Your task to perform on an android device: Open calendar and show me the first week of next month Image 0: 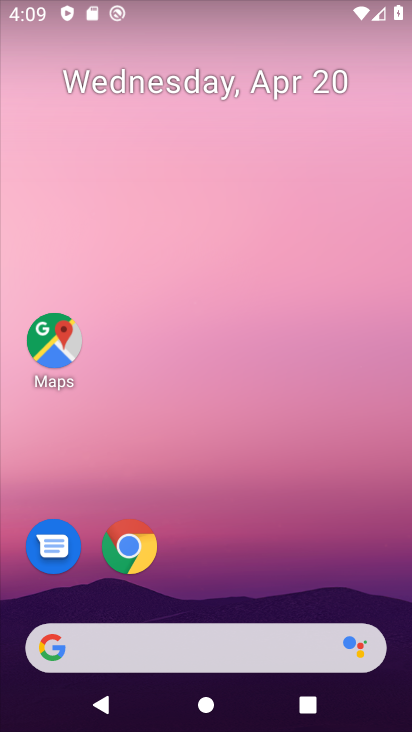
Step 0: drag from (277, 427) to (275, 110)
Your task to perform on an android device: Open calendar and show me the first week of next month Image 1: 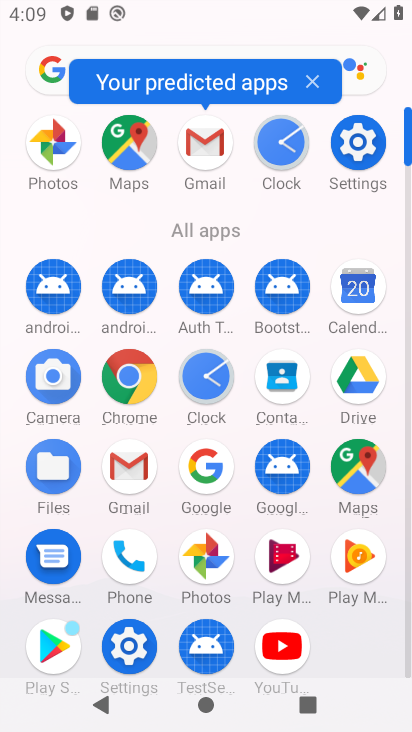
Step 1: click (356, 284)
Your task to perform on an android device: Open calendar and show me the first week of next month Image 2: 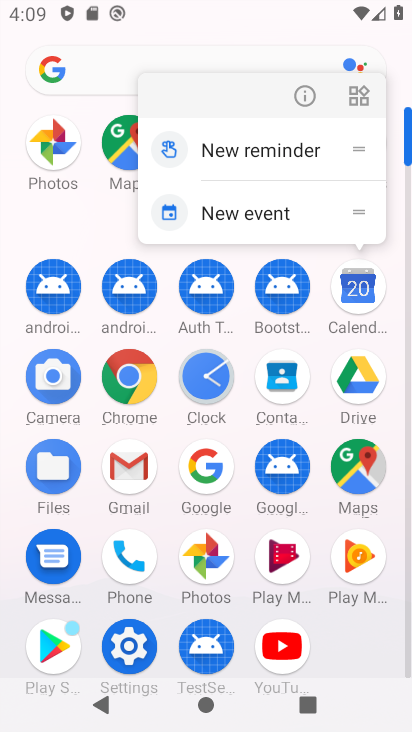
Step 2: click (356, 284)
Your task to perform on an android device: Open calendar and show me the first week of next month Image 3: 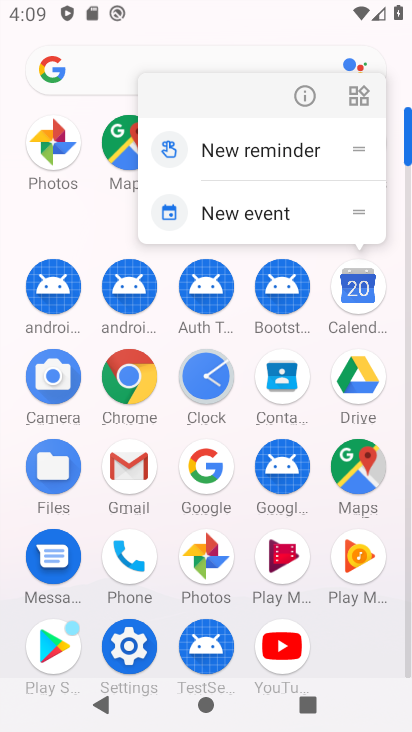
Step 3: click (356, 284)
Your task to perform on an android device: Open calendar and show me the first week of next month Image 4: 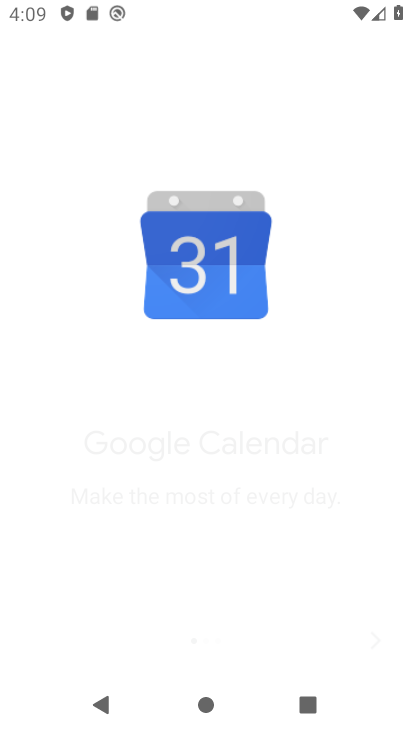
Step 4: click (356, 284)
Your task to perform on an android device: Open calendar and show me the first week of next month Image 5: 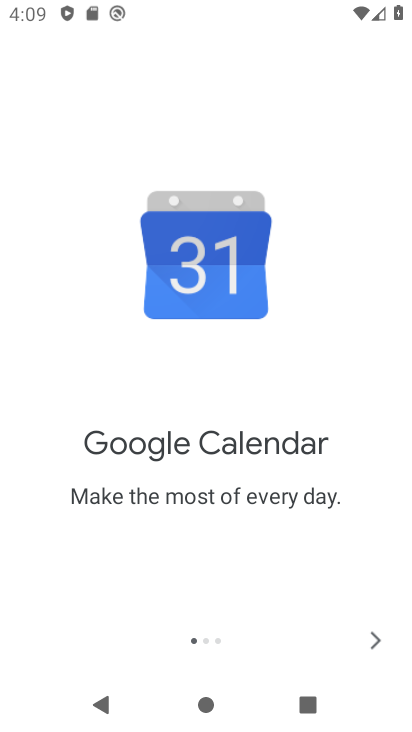
Step 5: click (371, 636)
Your task to perform on an android device: Open calendar and show me the first week of next month Image 6: 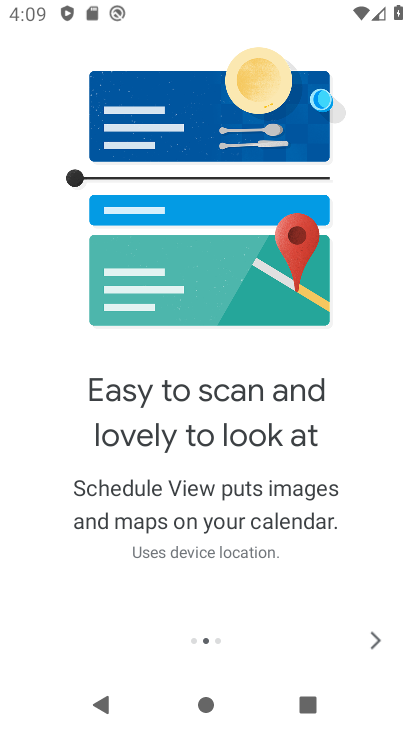
Step 6: click (371, 636)
Your task to perform on an android device: Open calendar and show me the first week of next month Image 7: 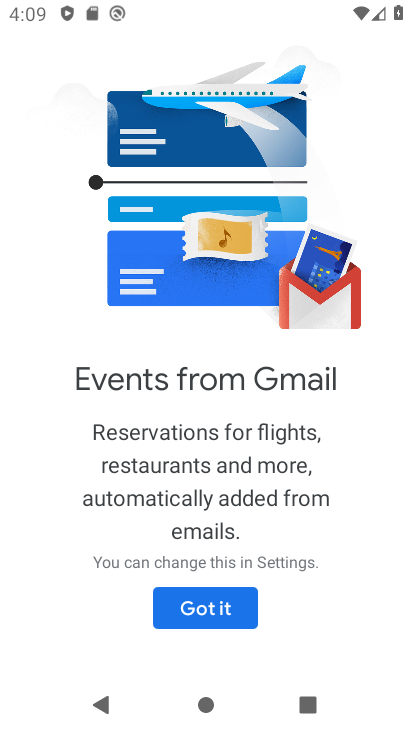
Step 7: click (240, 602)
Your task to perform on an android device: Open calendar and show me the first week of next month Image 8: 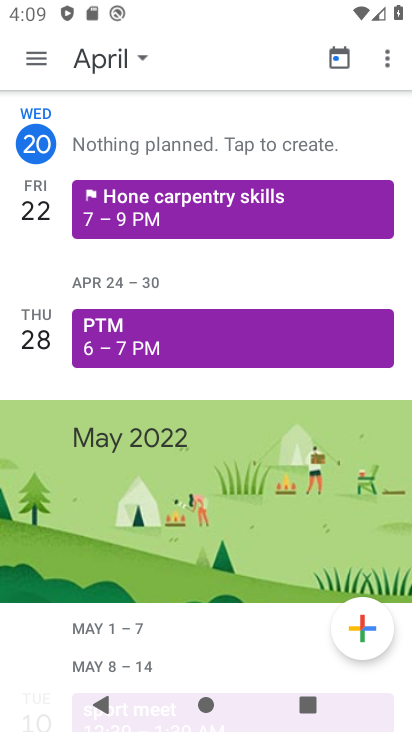
Step 8: click (42, 57)
Your task to perform on an android device: Open calendar and show me the first week of next month Image 9: 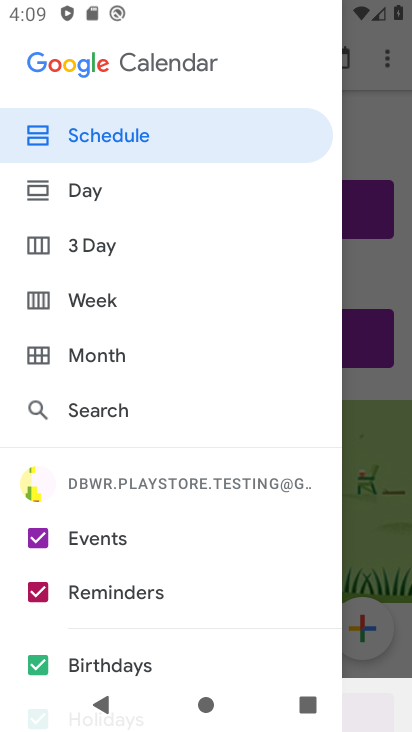
Step 9: click (82, 292)
Your task to perform on an android device: Open calendar and show me the first week of next month Image 10: 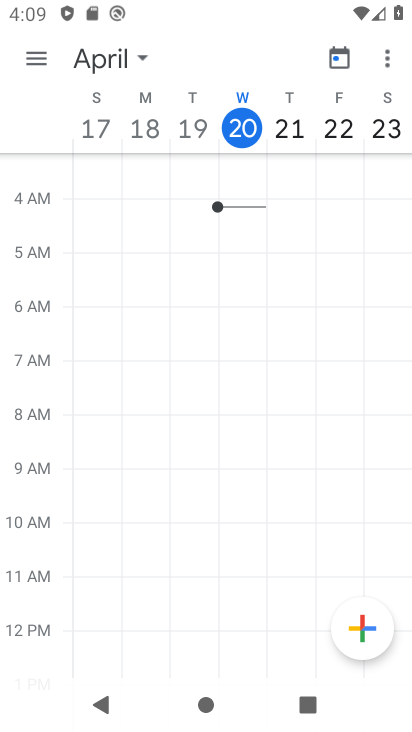
Step 10: task complete